Your task to perform on an android device: turn notification dots off Image 0: 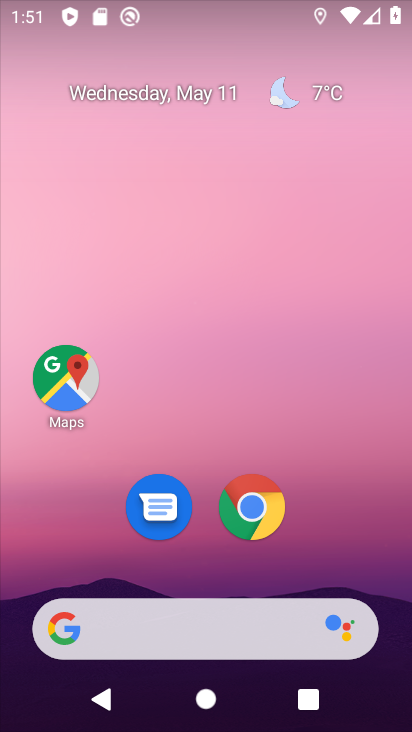
Step 0: drag from (345, 536) to (291, 93)
Your task to perform on an android device: turn notification dots off Image 1: 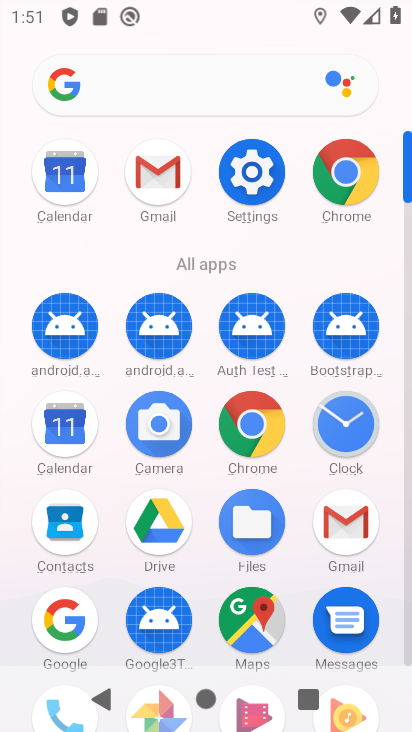
Step 1: drag from (7, 542) to (0, 256)
Your task to perform on an android device: turn notification dots off Image 2: 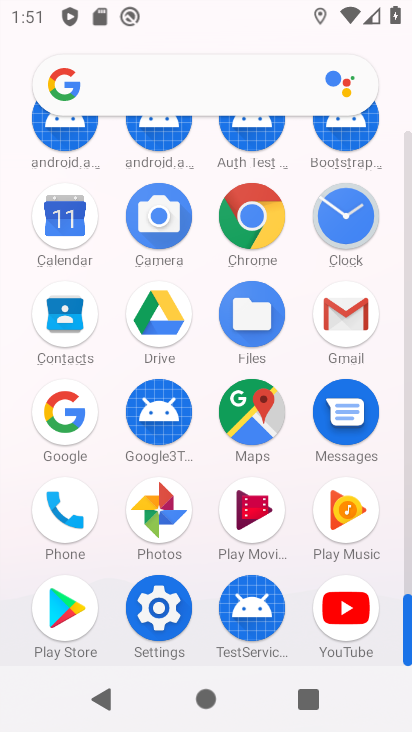
Step 2: click (153, 601)
Your task to perform on an android device: turn notification dots off Image 3: 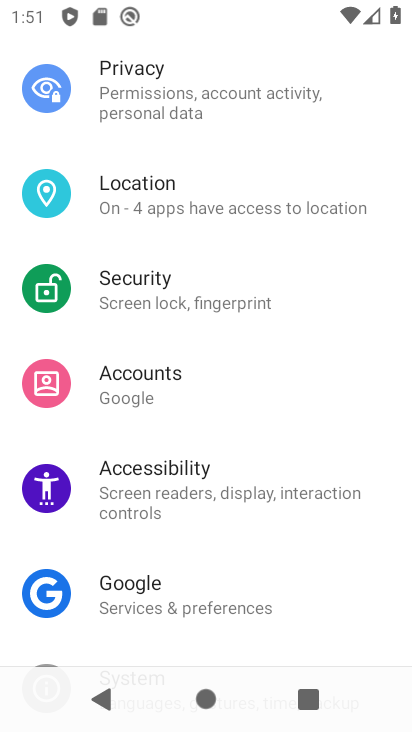
Step 3: drag from (216, 147) to (261, 559)
Your task to perform on an android device: turn notification dots off Image 4: 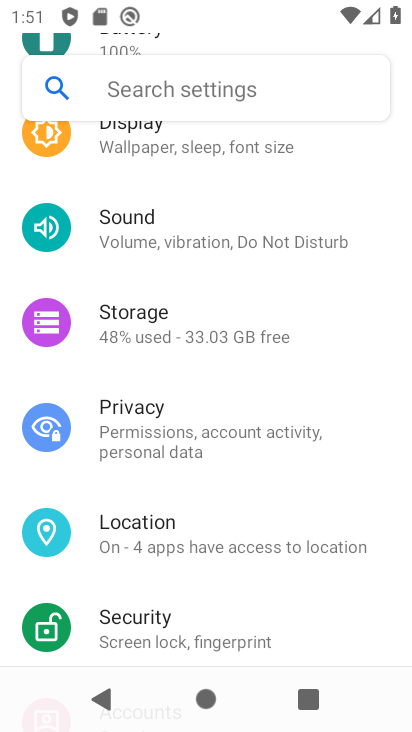
Step 4: drag from (201, 278) to (239, 556)
Your task to perform on an android device: turn notification dots off Image 5: 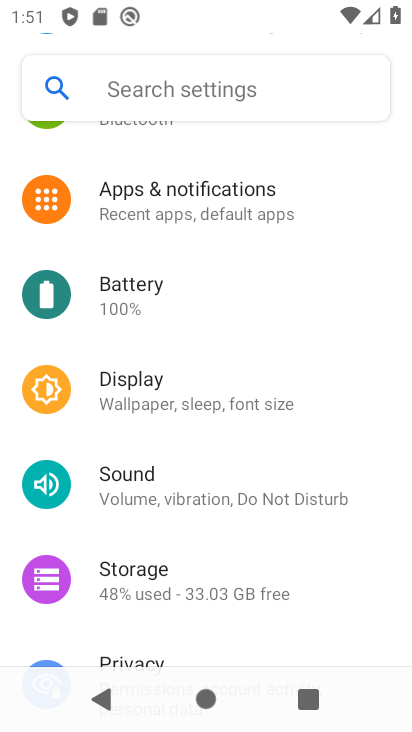
Step 5: click (207, 213)
Your task to perform on an android device: turn notification dots off Image 6: 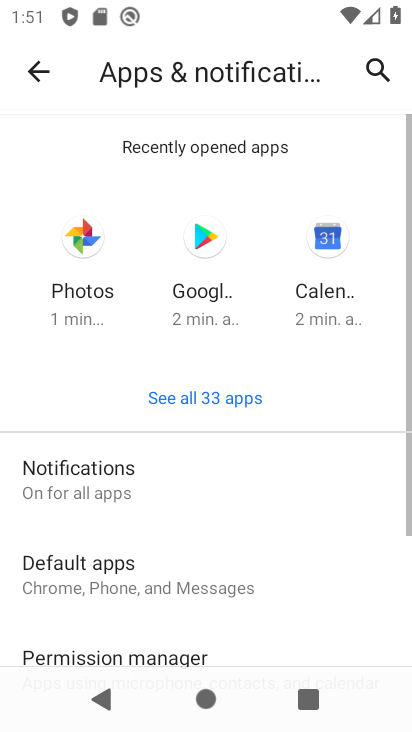
Step 6: drag from (244, 597) to (244, 168)
Your task to perform on an android device: turn notification dots off Image 7: 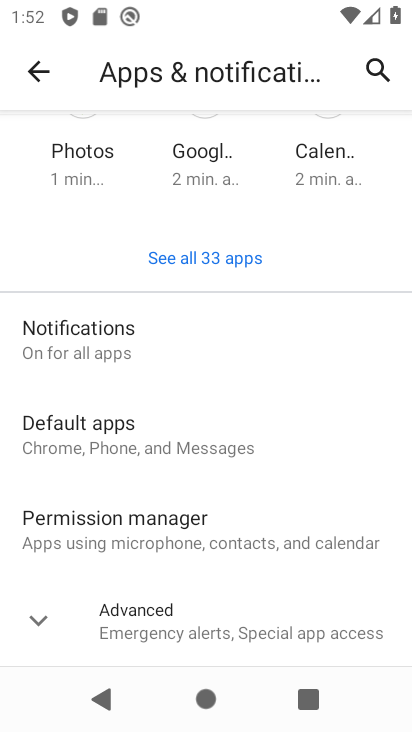
Step 7: click (185, 618)
Your task to perform on an android device: turn notification dots off Image 8: 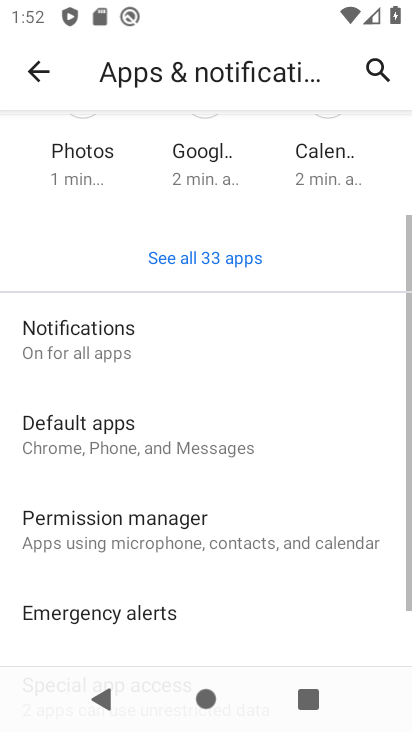
Step 8: drag from (241, 520) to (280, 136)
Your task to perform on an android device: turn notification dots off Image 9: 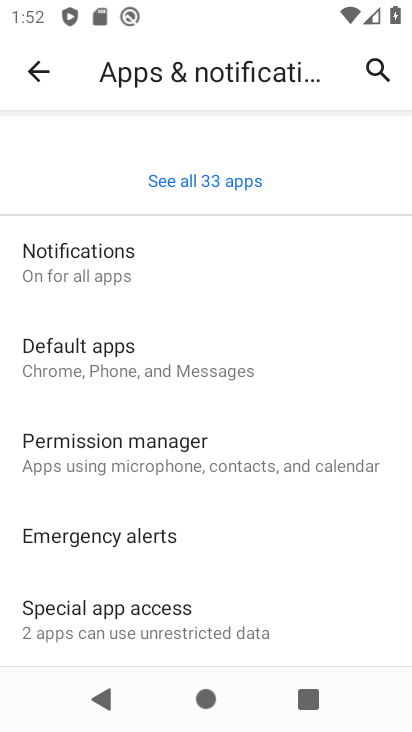
Step 9: drag from (212, 514) to (207, 198)
Your task to perform on an android device: turn notification dots off Image 10: 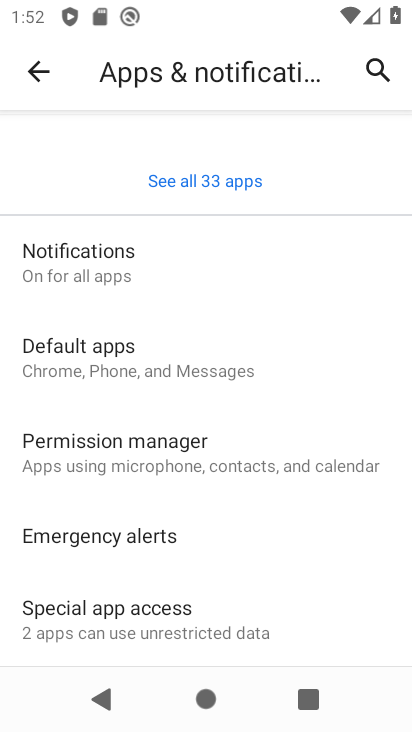
Step 10: click (145, 277)
Your task to perform on an android device: turn notification dots off Image 11: 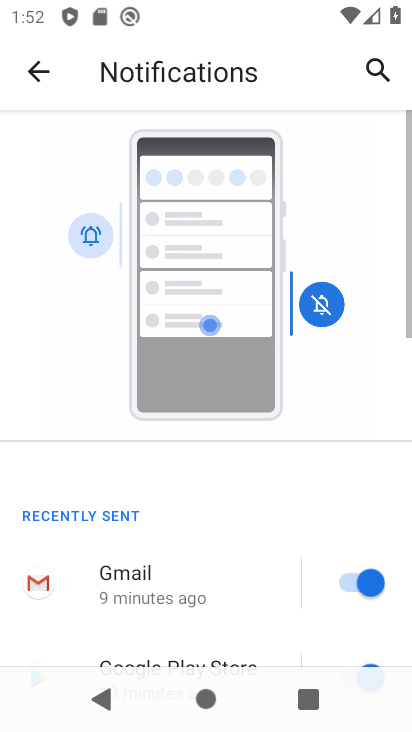
Step 11: drag from (201, 572) to (265, 135)
Your task to perform on an android device: turn notification dots off Image 12: 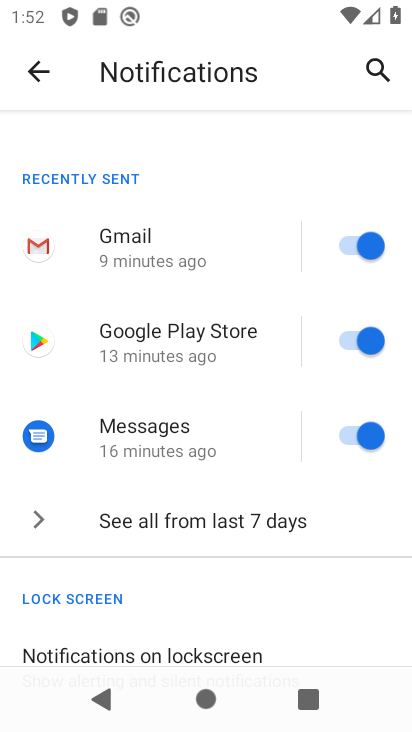
Step 12: drag from (241, 562) to (234, 184)
Your task to perform on an android device: turn notification dots off Image 13: 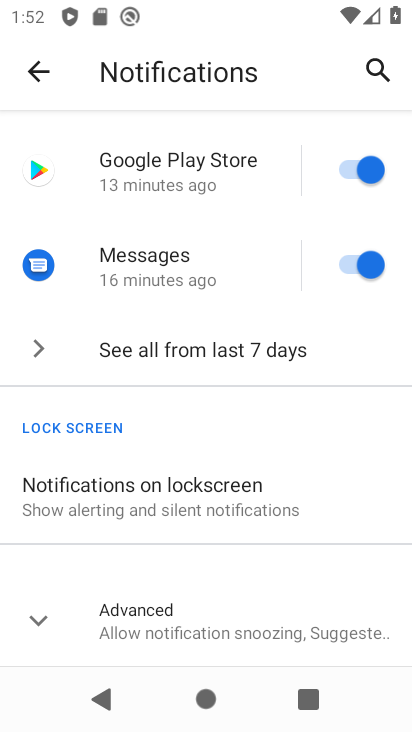
Step 13: click (48, 599)
Your task to perform on an android device: turn notification dots off Image 14: 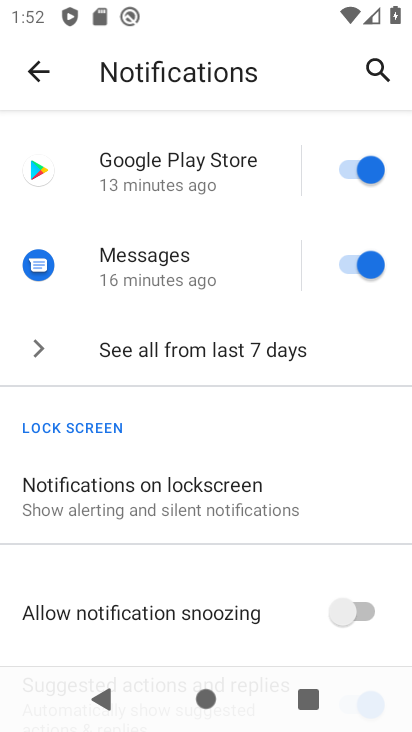
Step 14: task complete